Your task to perform on an android device: stop showing notifications on the lock screen Image 0: 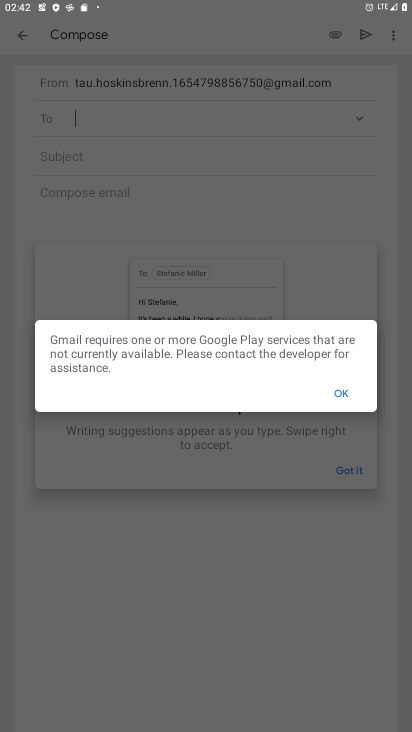
Step 0: press home button
Your task to perform on an android device: stop showing notifications on the lock screen Image 1: 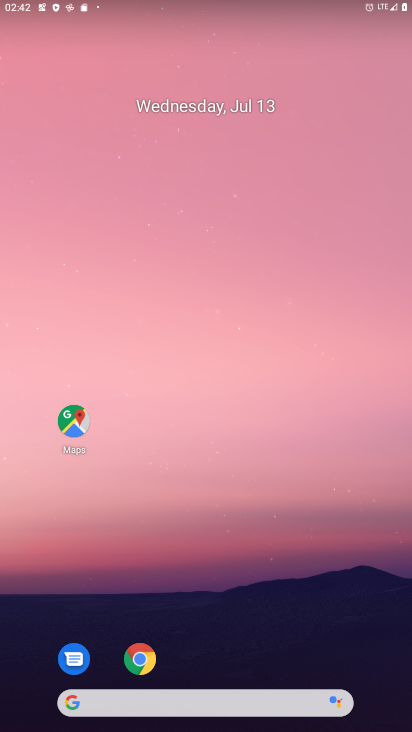
Step 1: drag from (207, 683) to (207, 110)
Your task to perform on an android device: stop showing notifications on the lock screen Image 2: 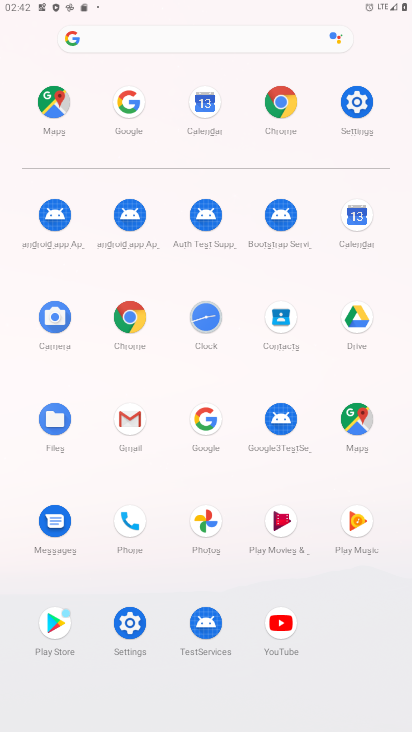
Step 2: click (360, 103)
Your task to perform on an android device: stop showing notifications on the lock screen Image 3: 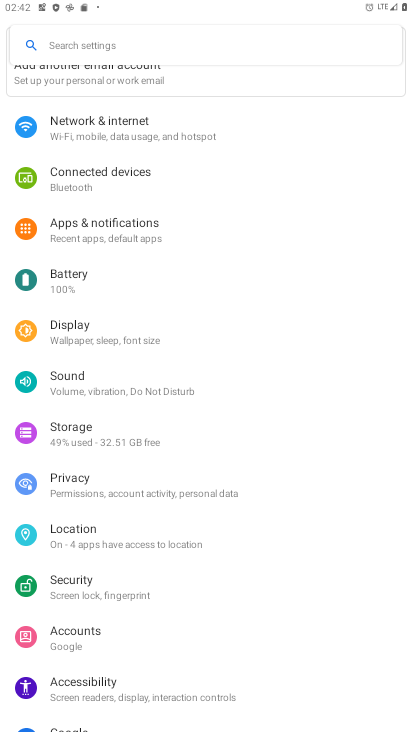
Step 3: click (114, 227)
Your task to perform on an android device: stop showing notifications on the lock screen Image 4: 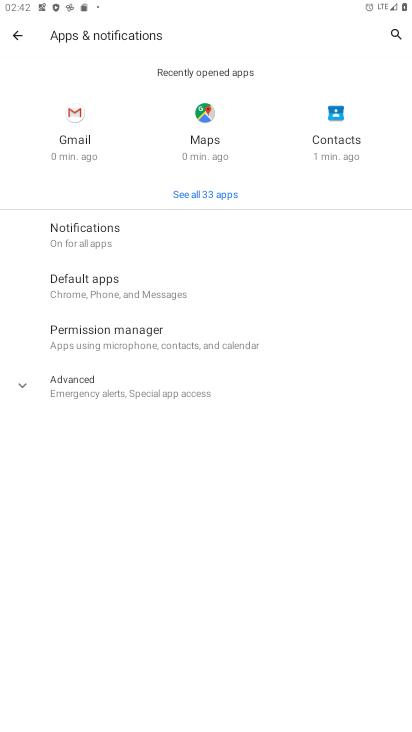
Step 4: click (93, 237)
Your task to perform on an android device: stop showing notifications on the lock screen Image 5: 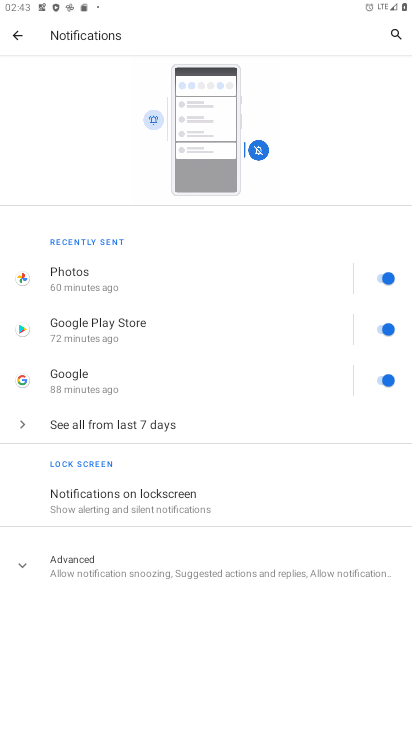
Step 5: click (166, 491)
Your task to perform on an android device: stop showing notifications on the lock screen Image 6: 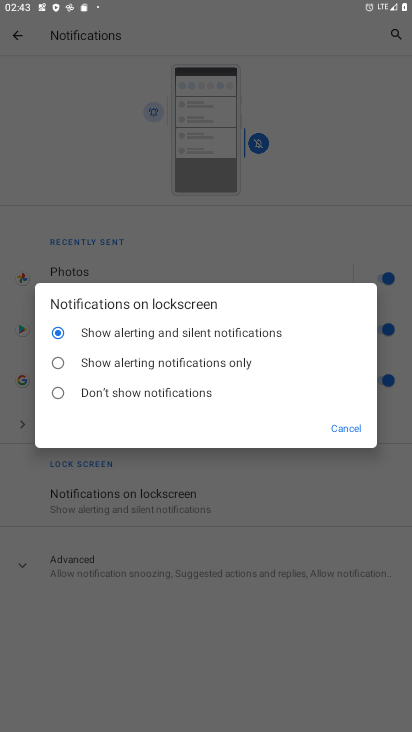
Step 6: click (56, 395)
Your task to perform on an android device: stop showing notifications on the lock screen Image 7: 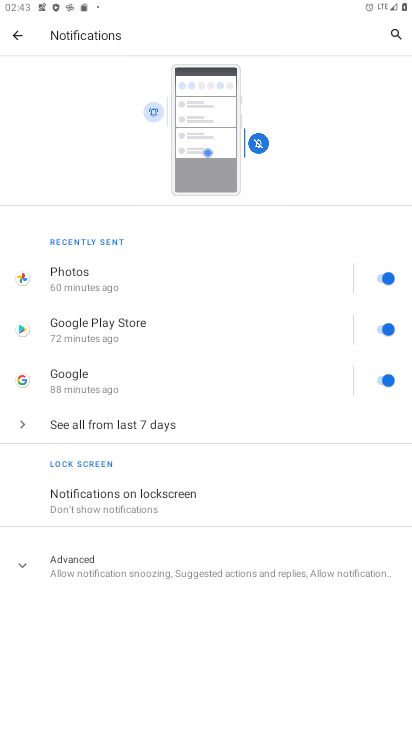
Step 7: task complete